Your task to perform on an android device: open wifi settings Image 0: 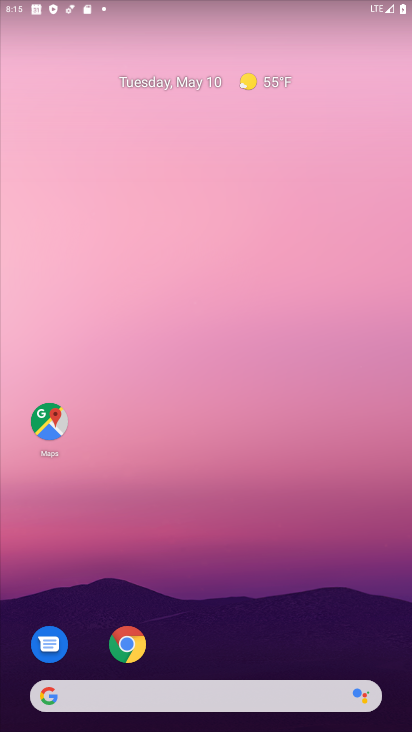
Step 0: drag from (290, 630) to (278, 128)
Your task to perform on an android device: open wifi settings Image 1: 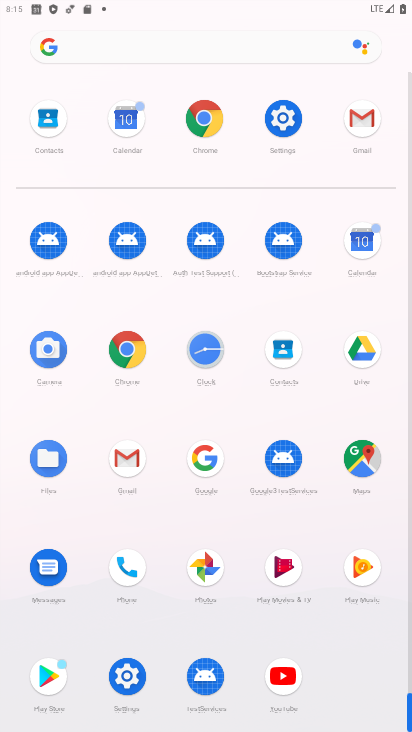
Step 1: click (296, 111)
Your task to perform on an android device: open wifi settings Image 2: 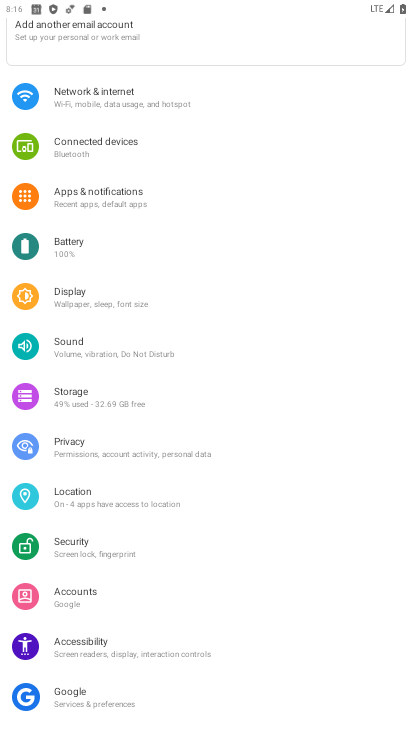
Step 2: drag from (137, 132) to (114, 415)
Your task to perform on an android device: open wifi settings Image 3: 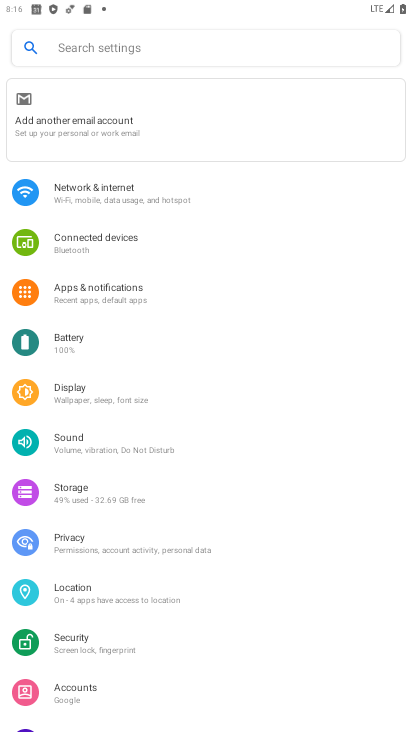
Step 3: click (148, 199)
Your task to perform on an android device: open wifi settings Image 4: 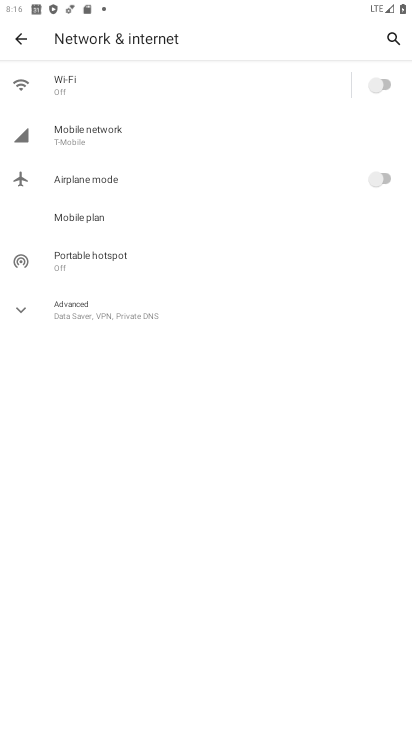
Step 4: click (143, 91)
Your task to perform on an android device: open wifi settings Image 5: 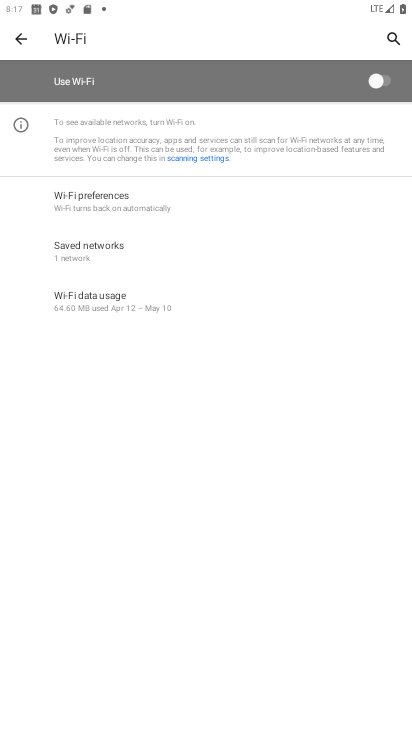
Step 5: task complete